Your task to perform on an android device: Search for vegetarian restaurants on Maps Image 0: 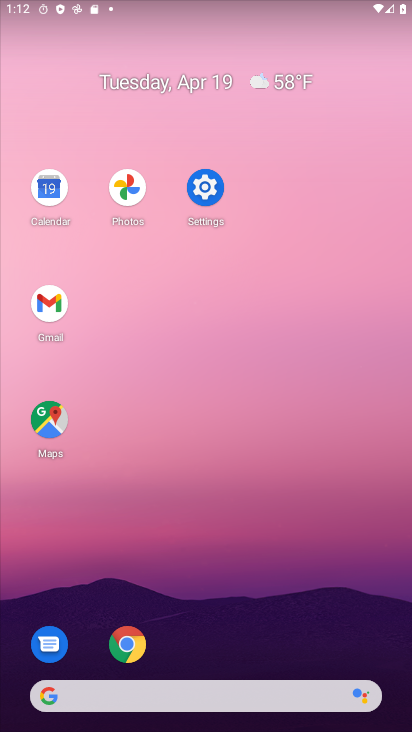
Step 0: click (47, 423)
Your task to perform on an android device: Search for vegetarian restaurants on Maps Image 1: 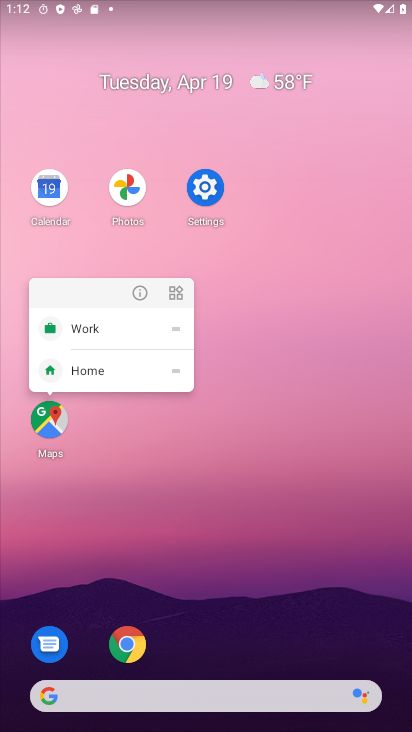
Step 1: click (40, 423)
Your task to perform on an android device: Search for vegetarian restaurants on Maps Image 2: 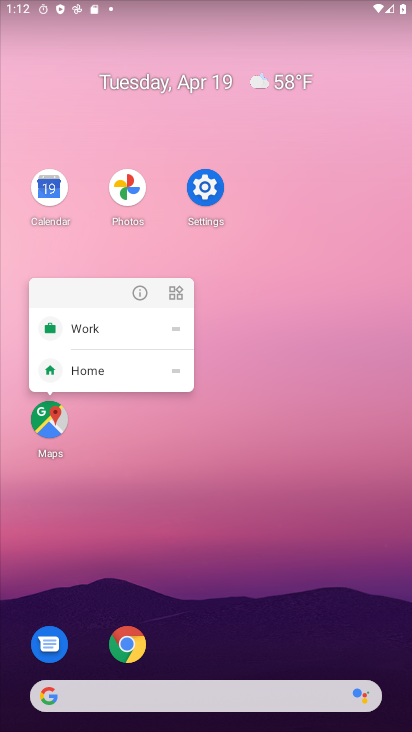
Step 2: click (40, 423)
Your task to perform on an android device: Search for vegetarian restaurants on Maps Image 3: 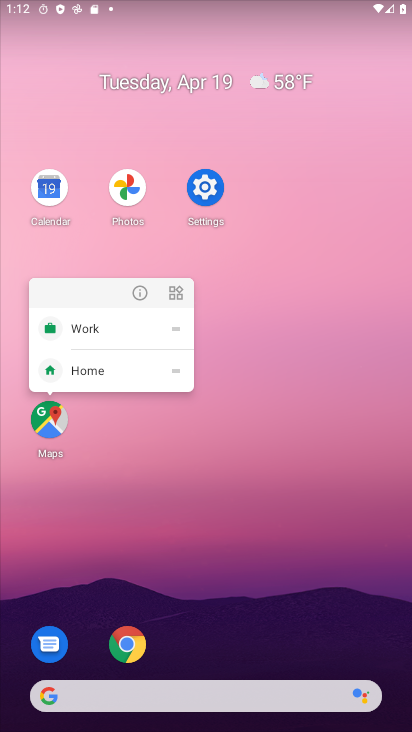
Step 3: click (40, 423)
Your task to perform on an android device: Search for vegetarian restaurants on Maps Image 4: 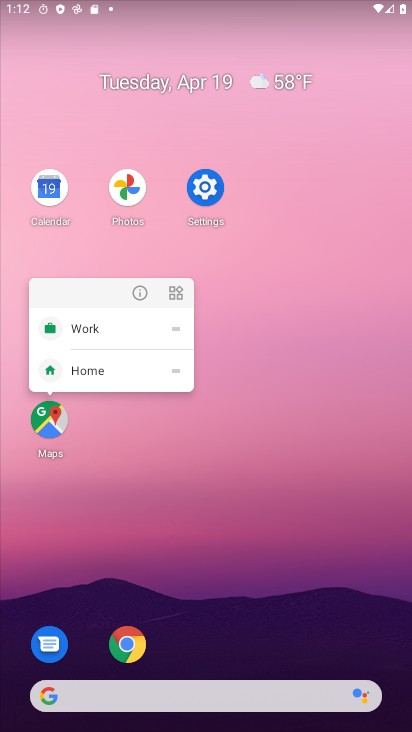
Step 4: click (50, 431)
Your task to perform on an android device: Search for vegetarian restaurants on Maps Image 5: 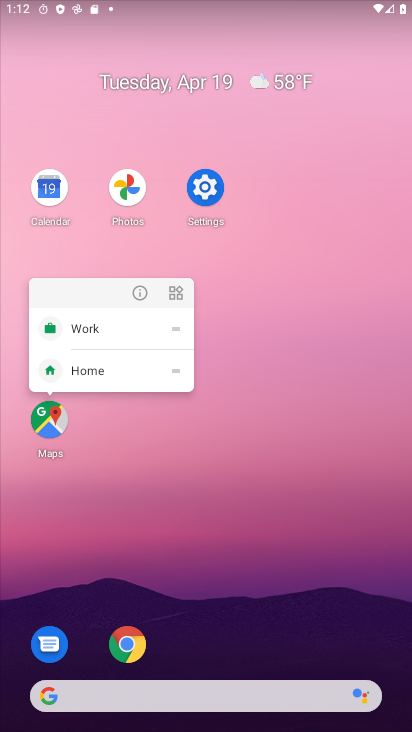
Step 5: click (56, 433)
Your task to perform on an android device: Search for vegetarian restaurants on Maps Image 6: 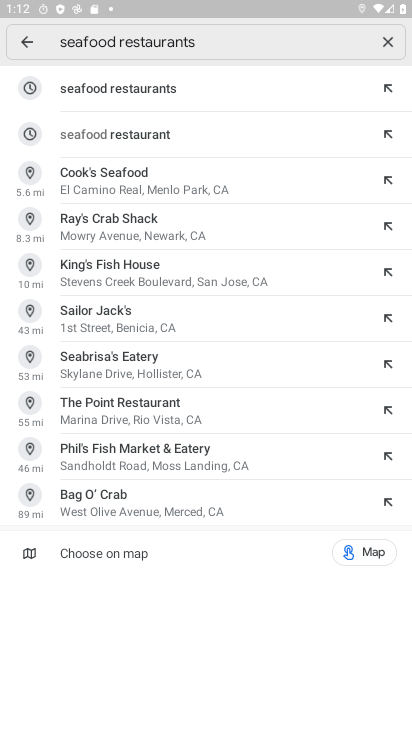
Step 6: click (383, 45)
Your task to perform on an android device: Search for vegetarian restaurants on Maps Image 7: 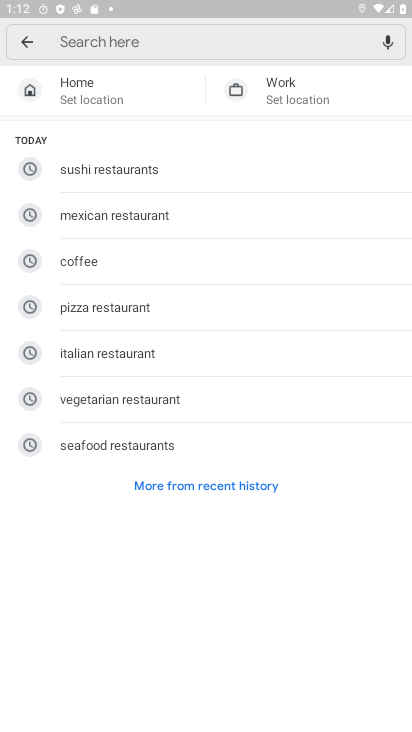
Step 7: click (200, 49)
Your task to perform on an android device: Search for vegetarian restaurants on Maps Image 8: 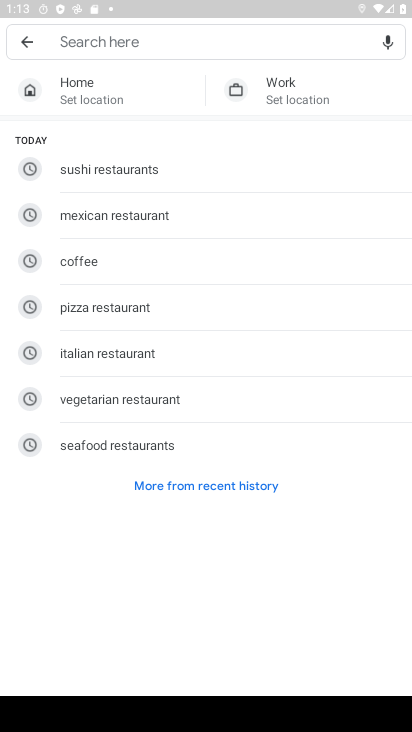
Step 8: type "vegetarian restaurants"
Your task to perform on an android device: Search for vegetarian restaurants on Maps Image 9: 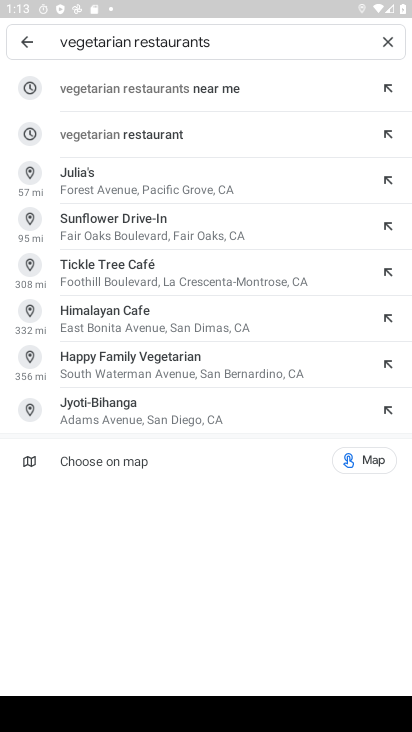
Step 9: task complete